Your task to perform on an android device: set the stopwatch Image 0: 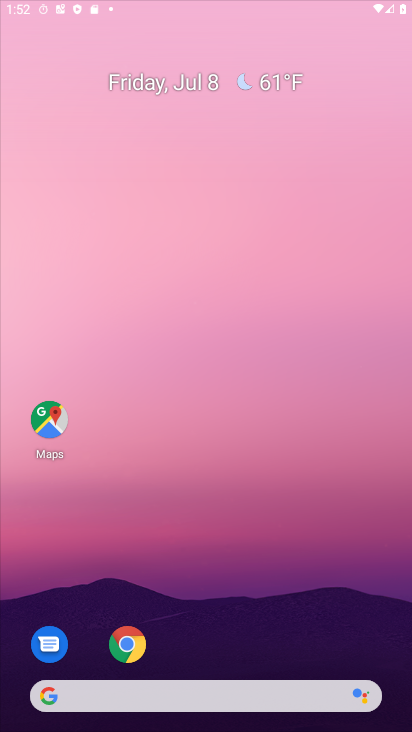
Step 0: drag from (166, 377) to (174, 0)
Your task to perform on an android device: set the stopwatch Image 1: 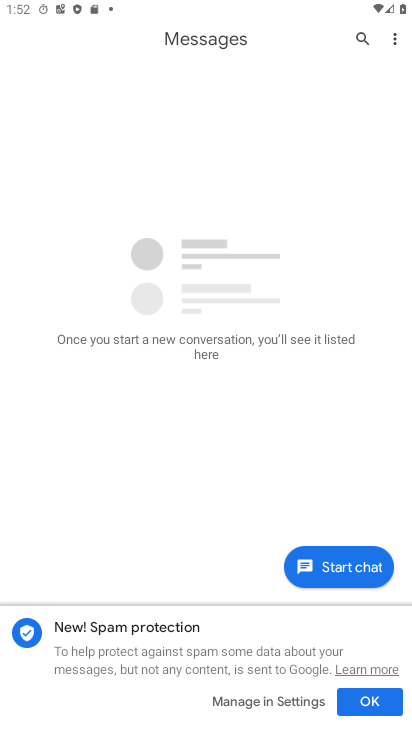
Step 1: press home button
Your task to perform on an android device: set the stopwatch Image 2: 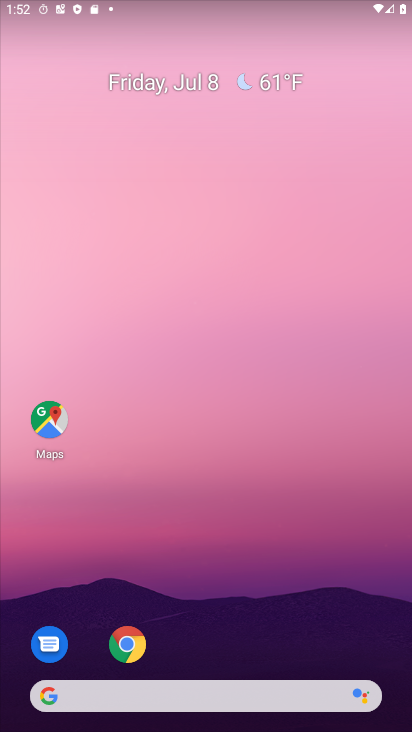
Step 2: drag from (200, 590) to (211, 452)
Your task to perform on an android device: set the stopwatch Image 3: 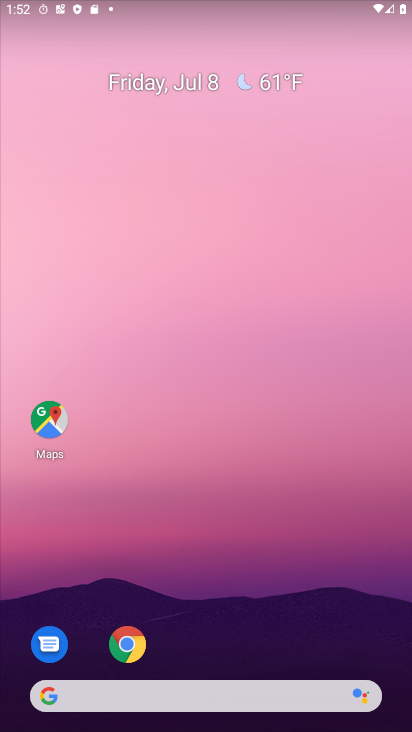
Step 3: click (218, 1)
Your task to perform on an android device: set the stopwatch Image 4: 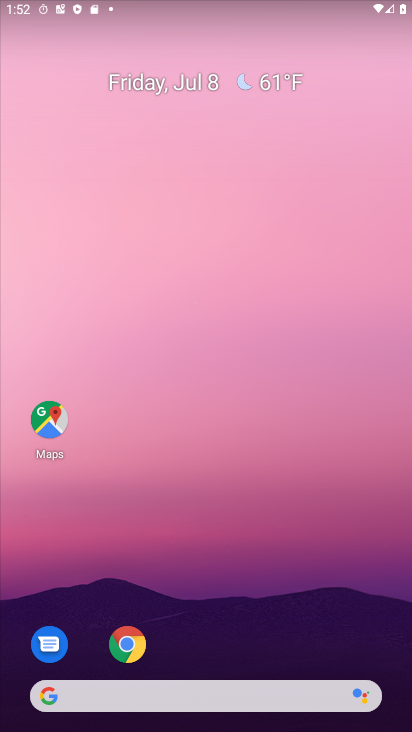
Step 4: click (214, 21)
Your task to perform on an android device: set the stopwatch Image 5: 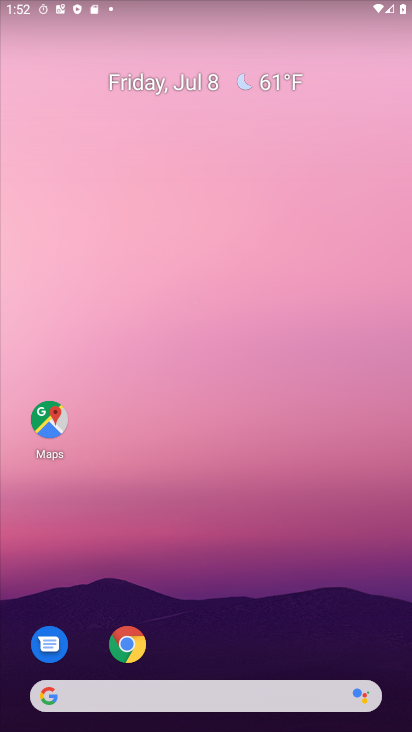
Step 5: drag from (226, 428) to (300, 16)
Your task to perform on an android device: set the stopwatch Image 6: 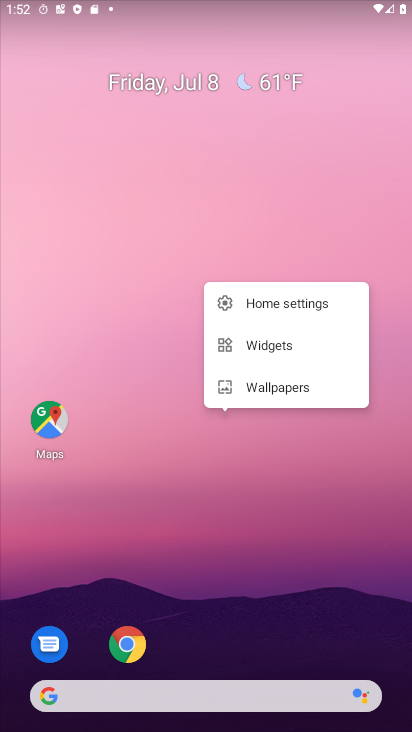
Step 6: drag from (220, 626) to (194, 220)
Your task to perform on an android device: set the stopwatch Image 7: 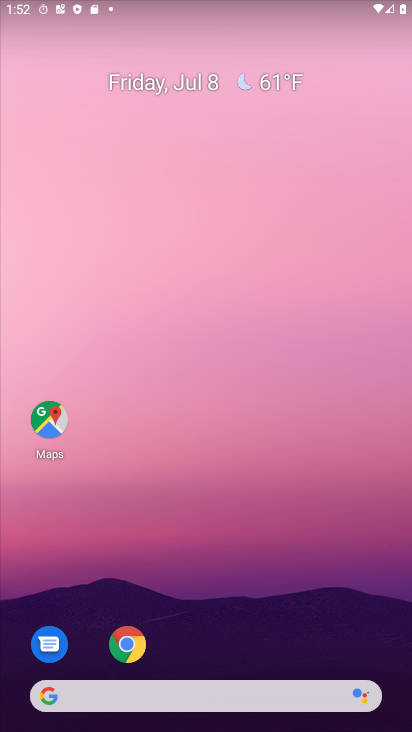
Step 7: drag from (204, 361) to (241, 64)
Your task to perform on an android device: set the stopwatch Image 8: 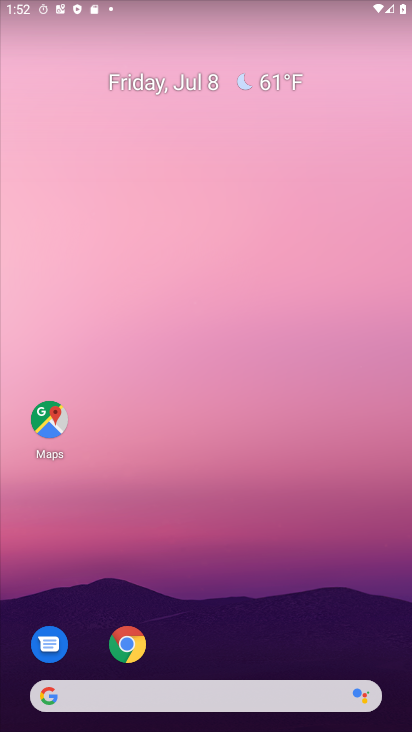
Step 8: drag from (183, 277) to (235, 31)
Your task to perform on an android device: set the stopwatch Image 9: 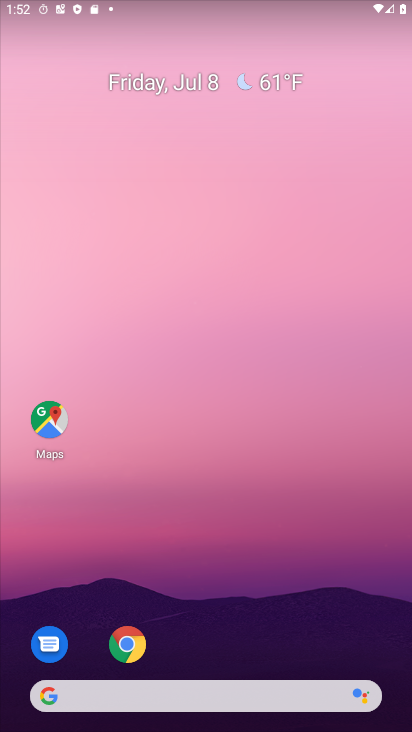
Step 9: drag from (201, 662) to (302, 125)
Your task to perform on an android device: set the stopwatch Image 10: 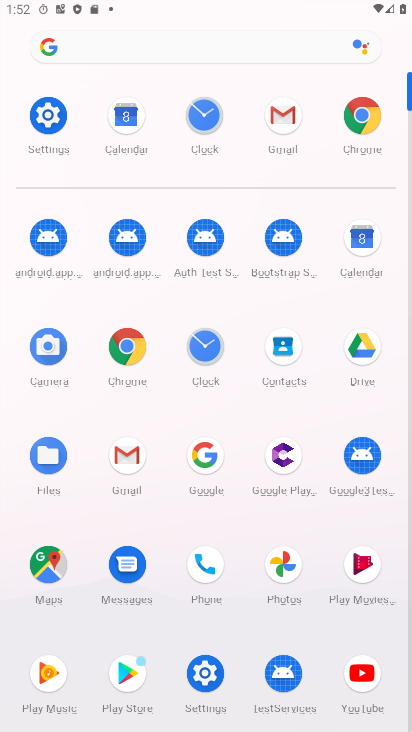
Step 10: click (212, 362)
Your task to perform on an android device: set the stopwatch Image 11: 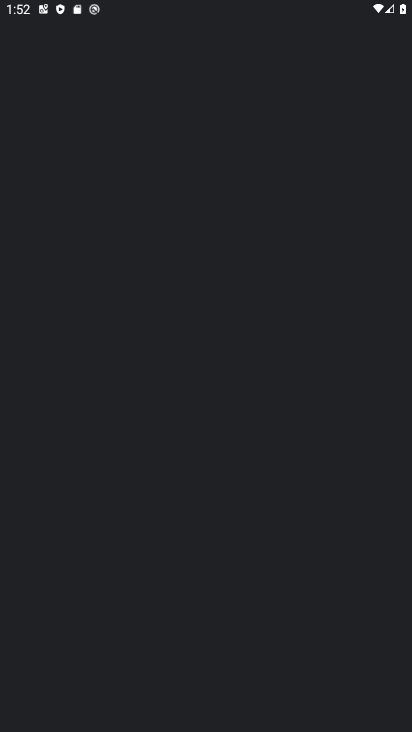
Step 11: click (205, 368)
Your task to perform on an android device: set the stopwatch Image 12: 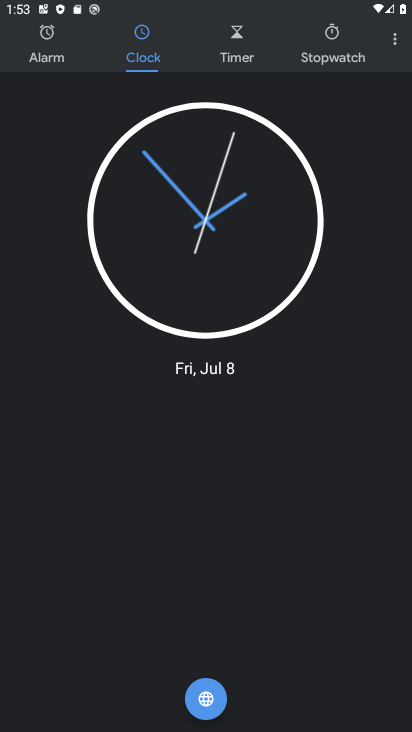
Step 12: click (335, 58)
Your task to perform on an android device: set the stopwatch Image 13: 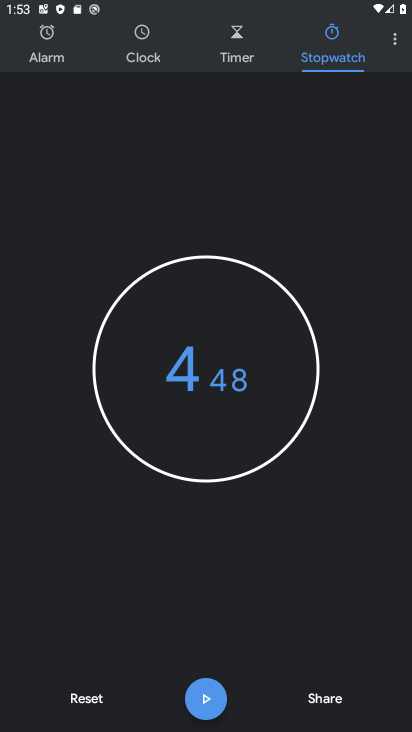
Step 13: click (201, 697)
Your task to perform on an android device: set the stopwatch Image 14: 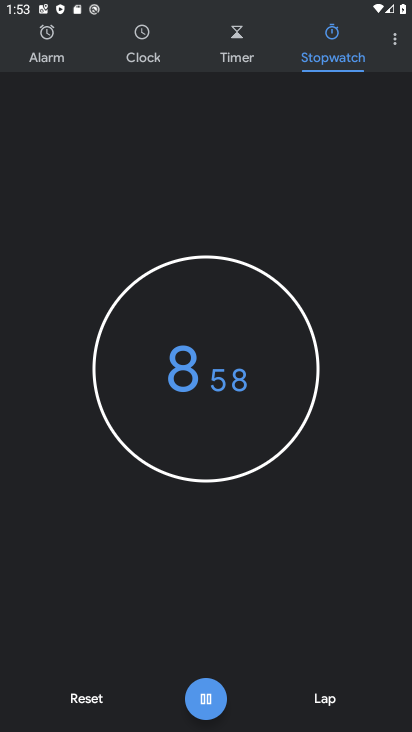
Step 14: click (90, 696)
Your task to perform on an android device: set the stopwatch Image 15: 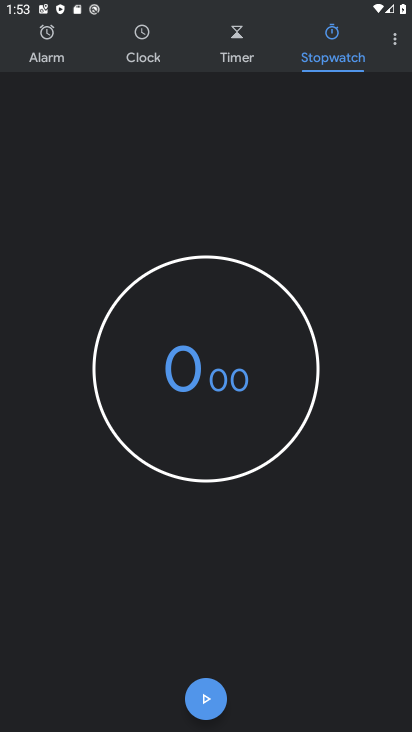
Step 15: click (90, 696)
Your task to perform on an android device: set the stopwatch Image 16: 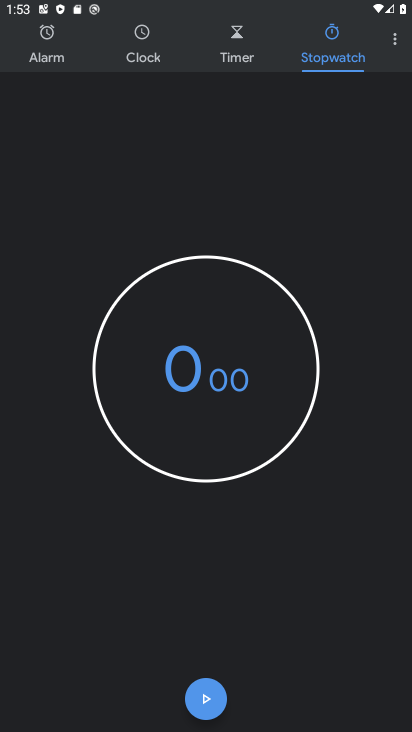
Step 16: click (210, 704)
Your task to perform on an android device: set the stopwatch Image 17: 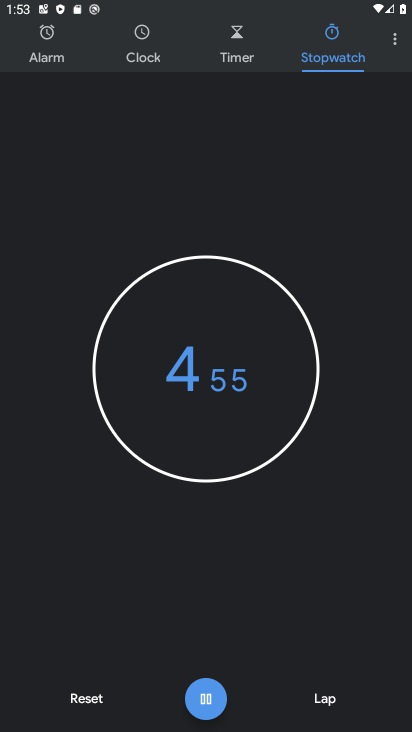
Step 17: click (210, 704)
Your task to perform on an android device: set the stopwatch Image 18: 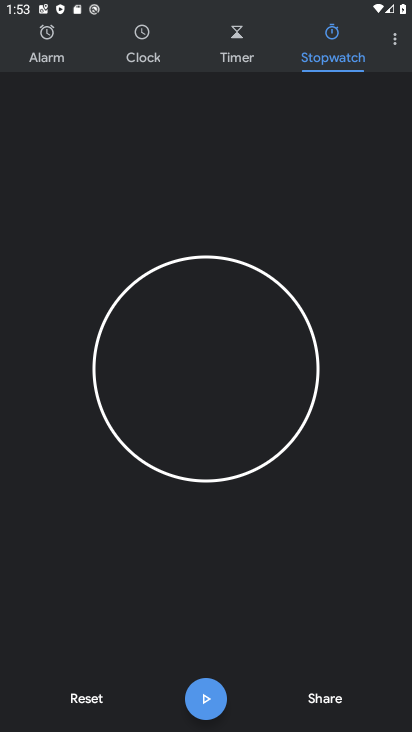
Step 18: task complete